Your task to perform on an android device: find which apps use the phone's location Image 0: 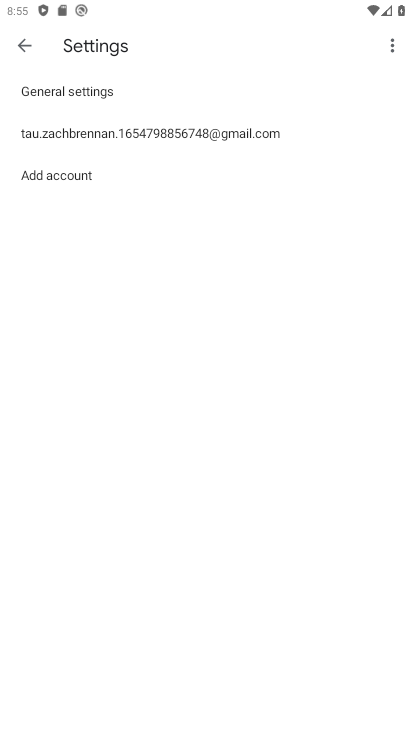
Step 0: click (129, 630)
Your task to perform on an android device: find which apps use the phone's location Image 1: 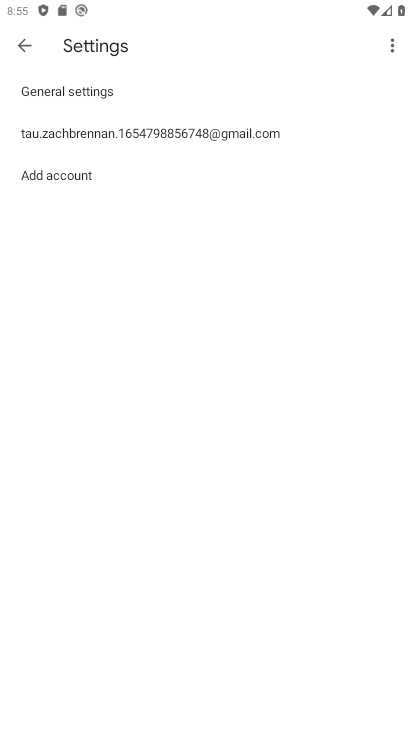
Step 1: press home button
Your task to perform on an android device: find which apps use the phone's location Image 2: 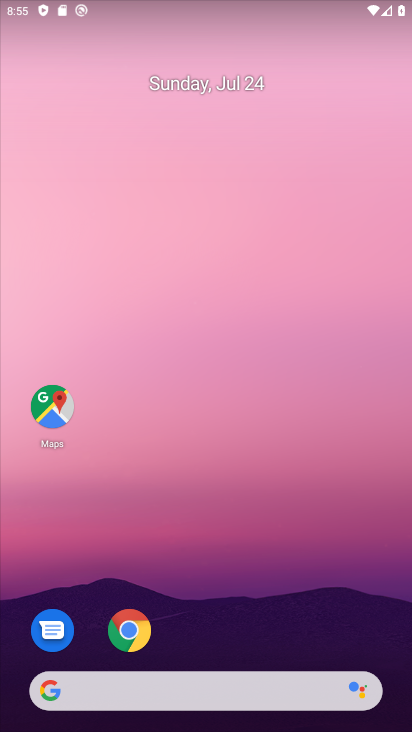
Step 2: drag from (249, 566) to (198, 125)
Your task to perform on an android device: find which apps use the phone's location Image 3: 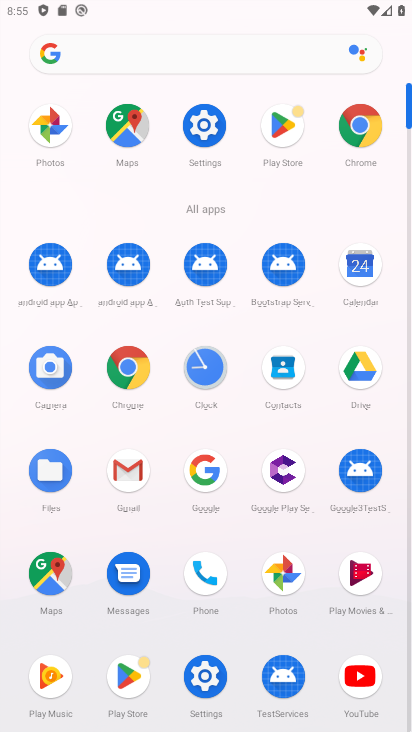
Step 3: click (213, 113)
Your task to perform on an android device: find which apps use the phone's location Image 4: 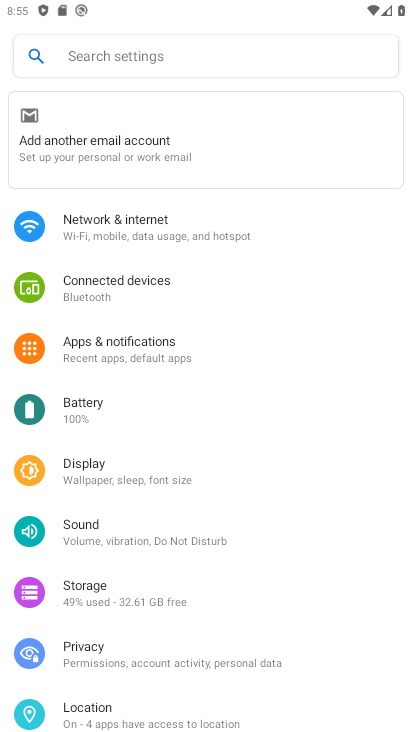
Step 4: click (83, 708)
Your task to perform on an android device: find which apps use the phone's location Image 5: 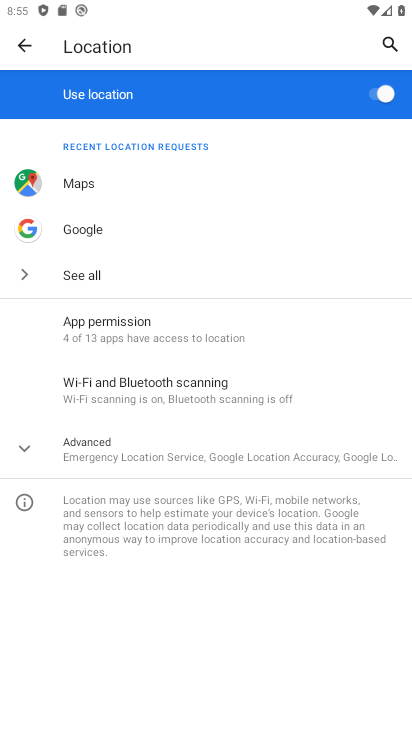
Step 5: click (82, 274)
Your task to perform on an android device: find which apps use the phone's location Image 6: 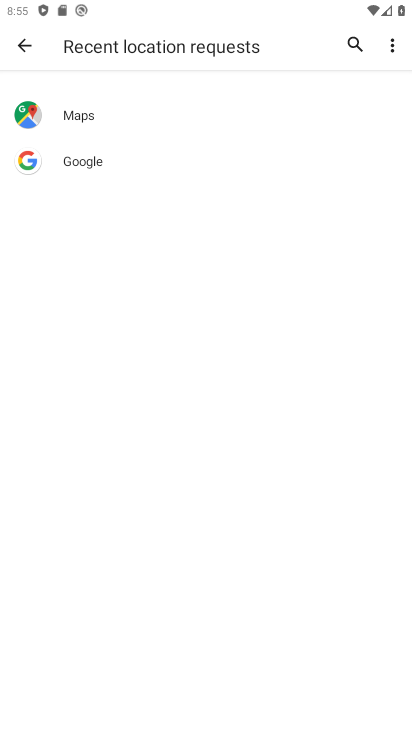
Step 6: task complete